Your task to perform on an android device: toggle javascript in the chrome app Image 0: 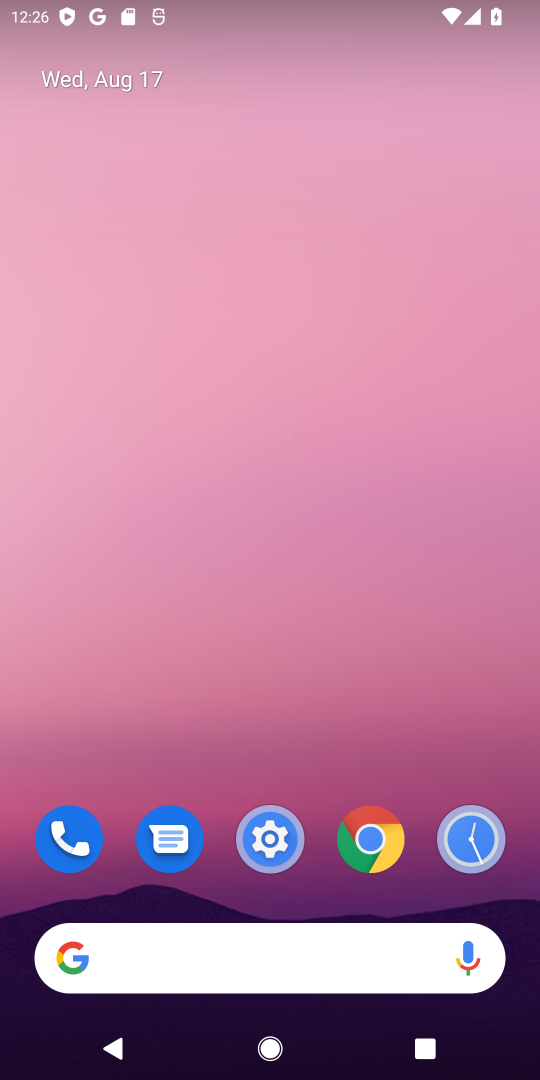
Step 0: click (369, 843)
Your task to perform on an android device: toggle javascript in the chrome app Image 1: 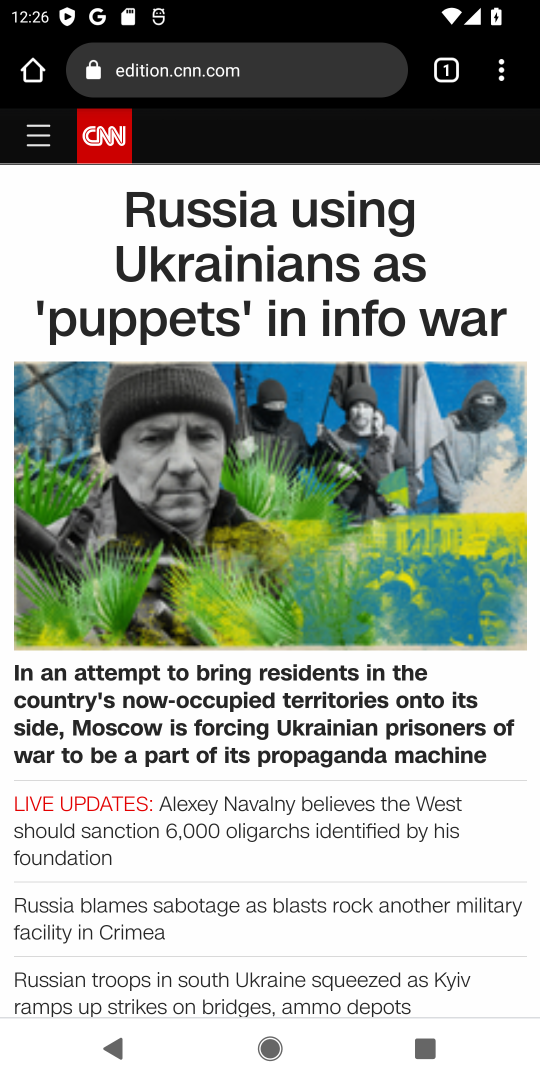
Step 1: click (531, 84)
Your task to perform on an android device: toggle javascript in the chrome app Image 2: 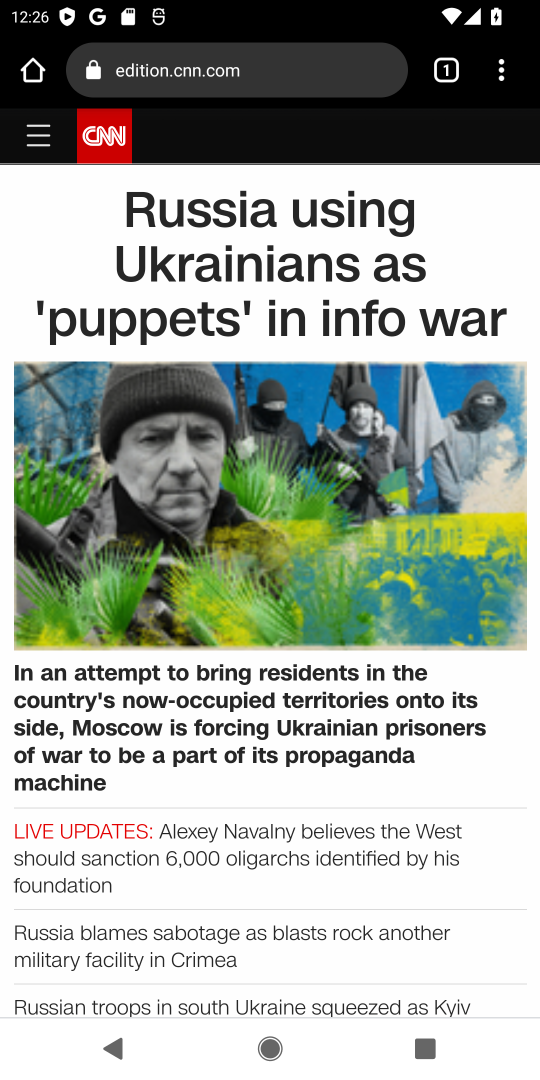
Step 2: drag from (497, 86) to (300, 916)
Your task to perform on an android device: toggle javascript in the chrome app Image 3: 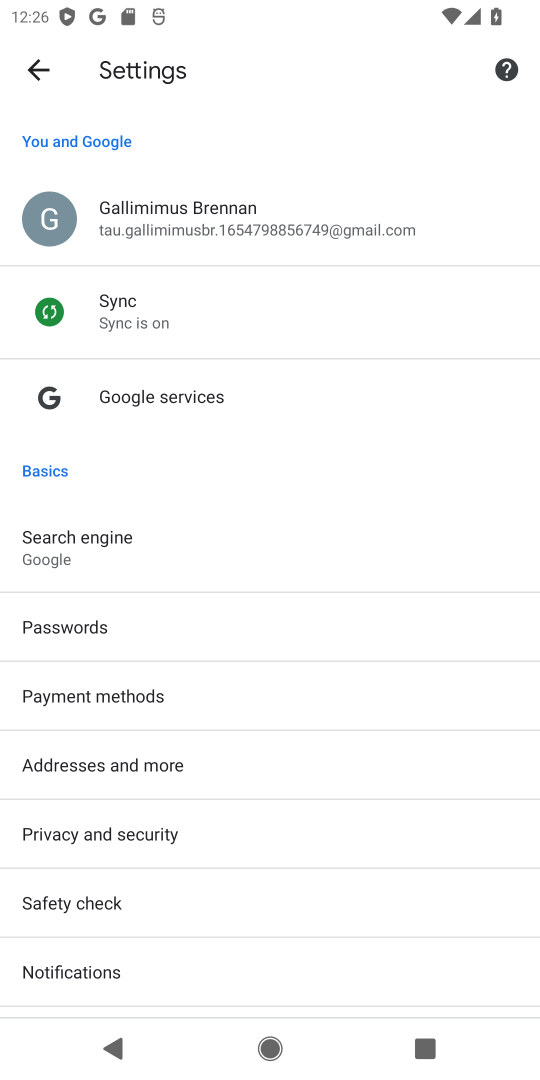
Step 3: drag from (160, 887) to (270, 705)
Your task to perform on an android device: toggle javascript in the chrome app Image 4: 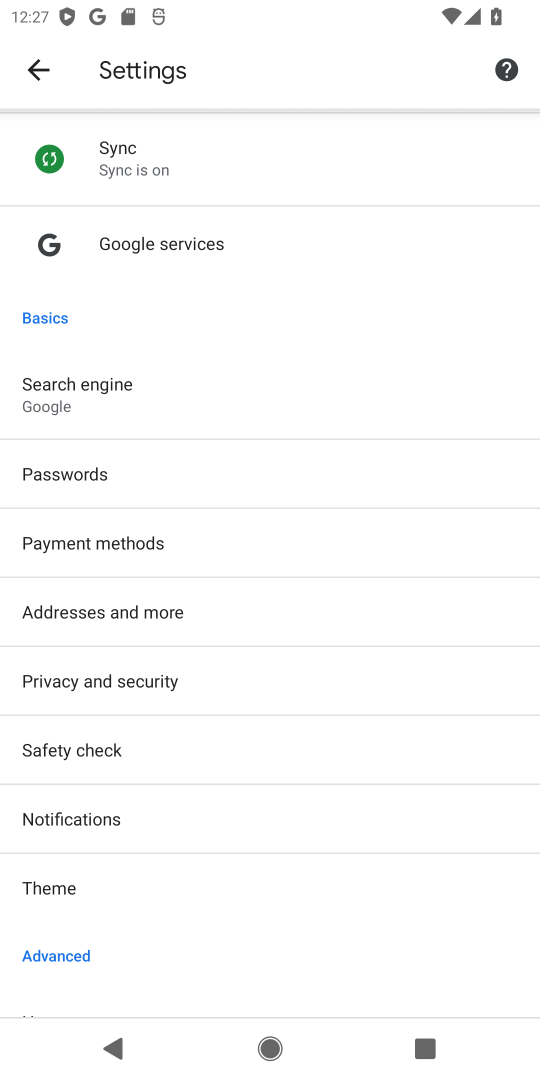
Step 4: drag from (170, 898) to (276, 734)
Your task to perform on an android device: toggle javascript in the chrome app Image 5: 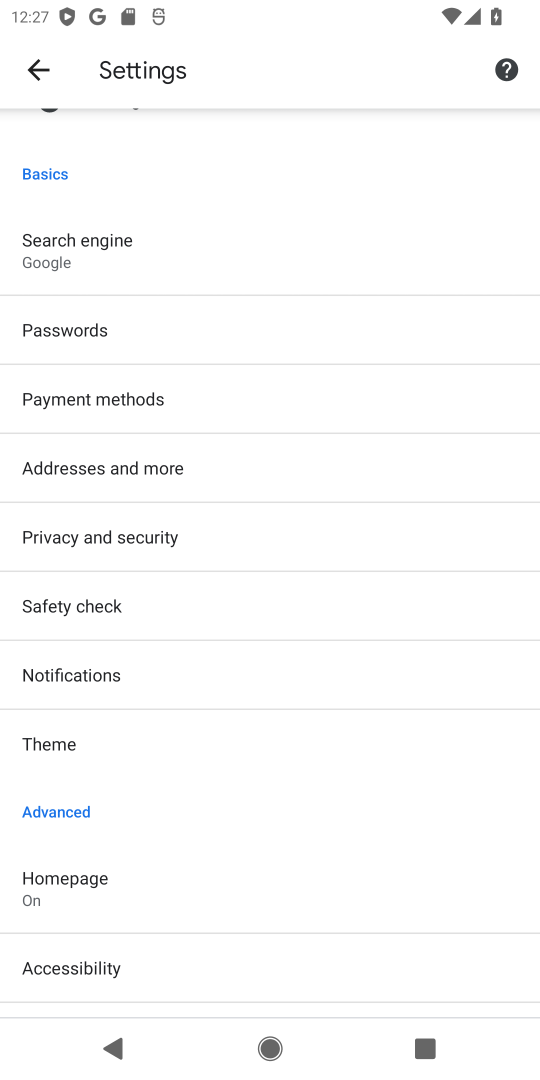
Step 5: drag from (207, 893) to (333, 712)
Your task to perform on an android device: toggle javascript in the chrome app Image 6: 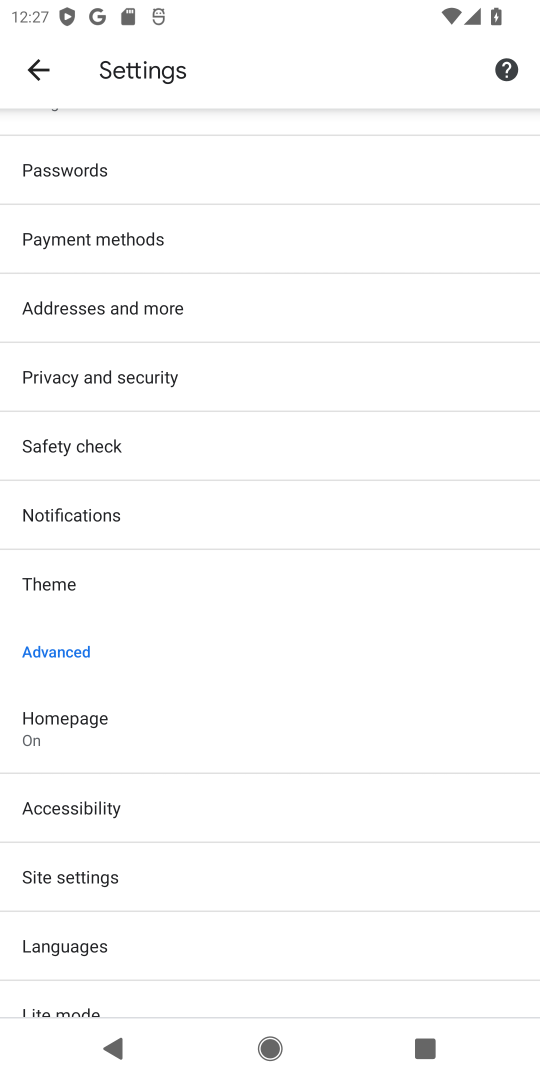
Step 6: drag from (186, 927) to (307, 770)
Your task to perform on an android device: toggle javascript in the chrome app Image 7: 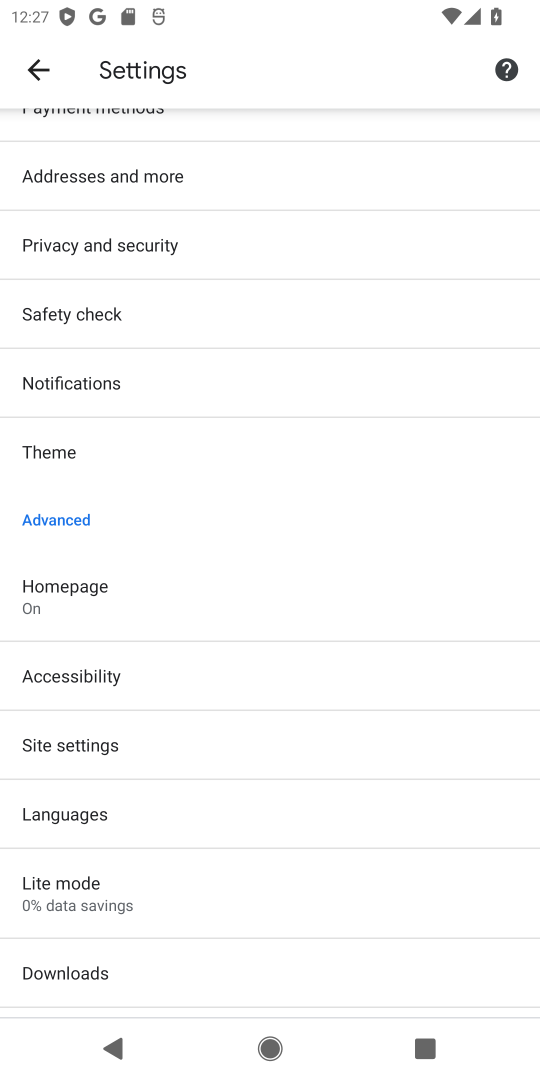
Step 7: click (107, 738)
Your task to perform on an android device: toggle javascript in the chrome app Image 8: 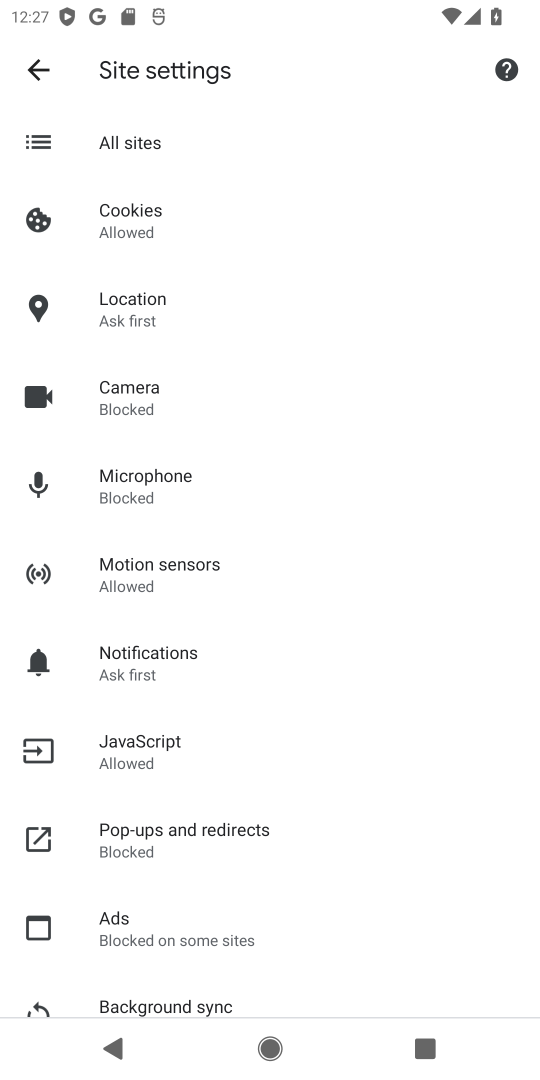
Step 8: click (166, 743)
Your task to perform on an android device: toggle javascript in the chrome app Image 9: 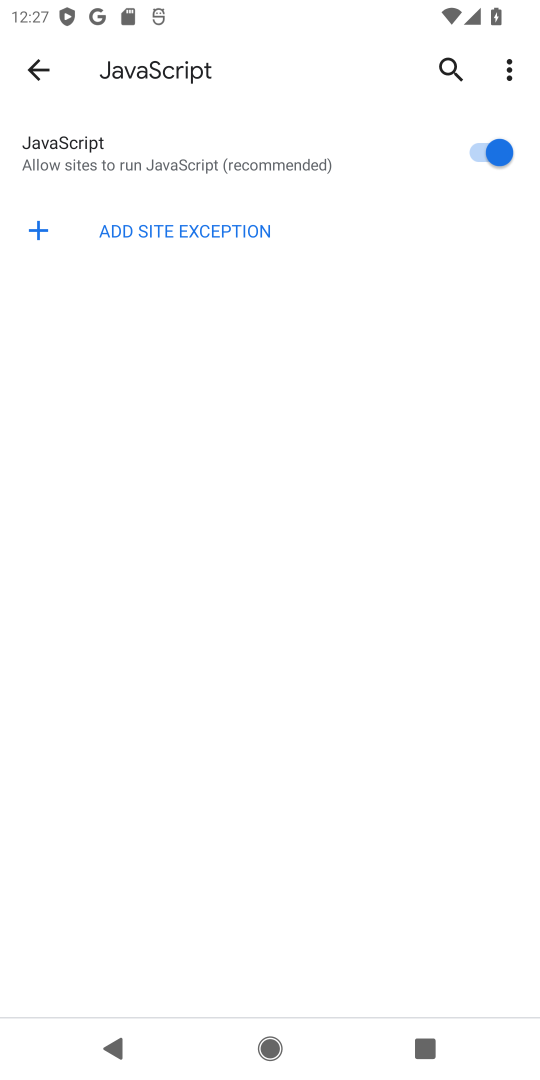
Step 9: click (483, 152)
Your task to perform on an android device: toggle javascript in the chrome app Image 10: 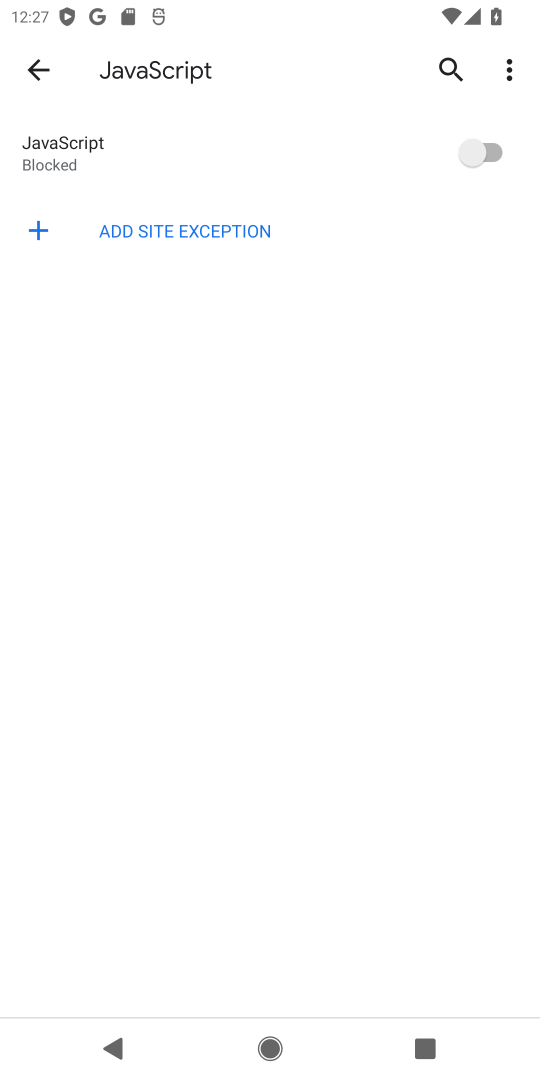
Step 10: task complete